Your task to perform on an android device: see sites visited before in the chrome app Image 0: 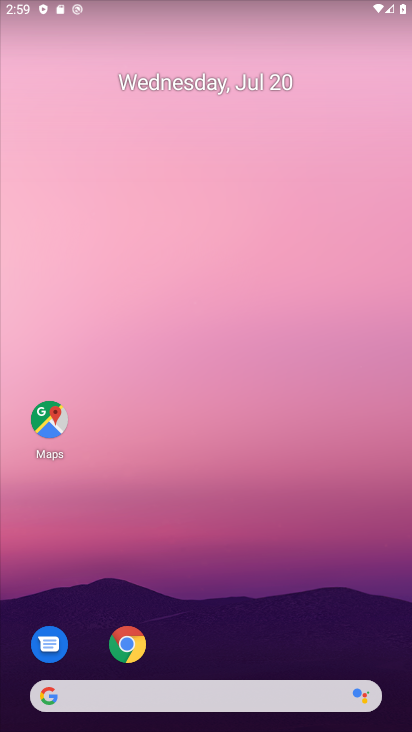
Step 0: click (131, 637)
Your task to perform on an android device: see sites visited before in the chrome app Image 1: 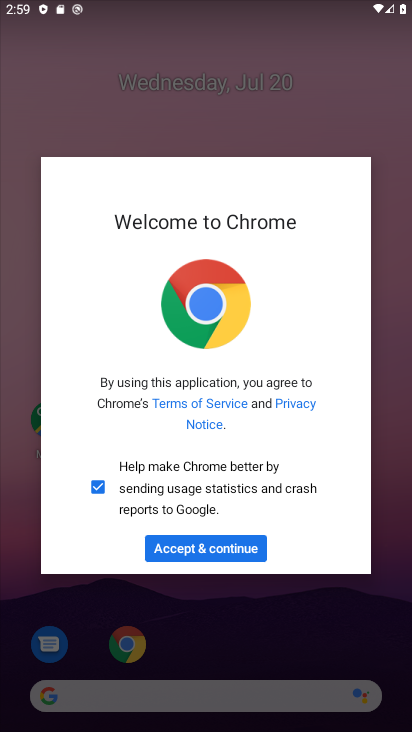
Step 1: click (232, 543)
Your task to perform on an android device: see sites visited before in the chrome app Image 2: 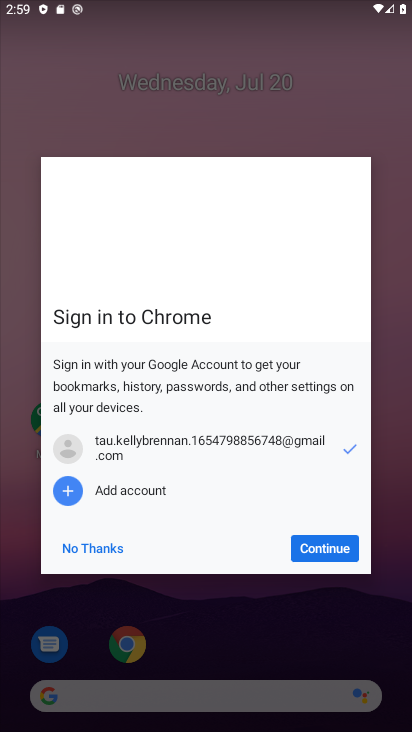
Step 2: click (349, 541)
Your task to perform on an android device: see sites visited before in the chrome app Image 3: 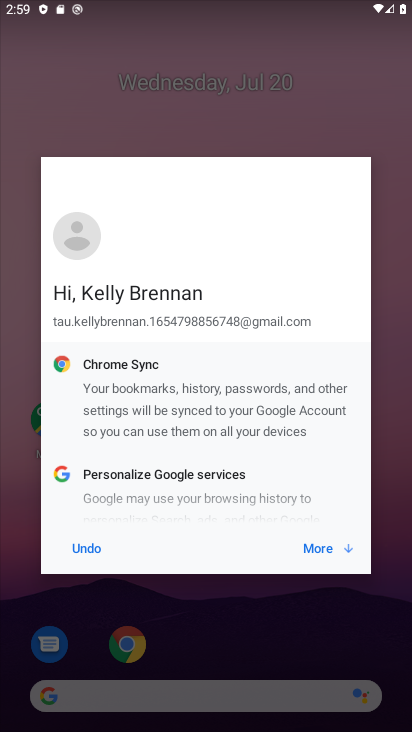
Step 3: click (324, 534)
Your task to perform on an android device: see sites visited before in the chrome app Image 4: 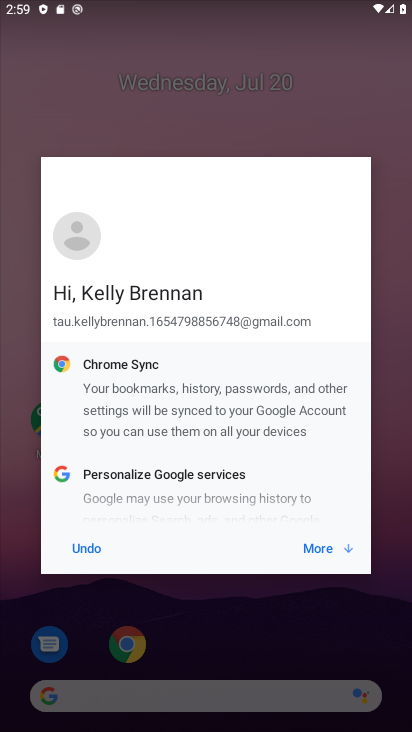
Step 4: click (322, 538)
Your task to perform on an android device: see sites visited before in the chrome app Image 5: 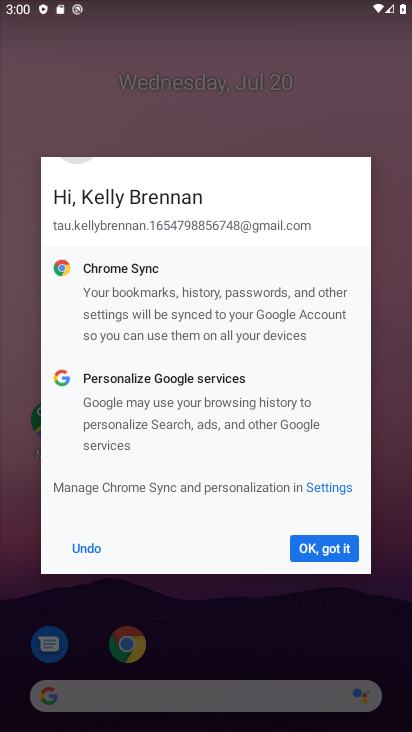
Step 5: click (299, 550)
Your task to perform on an android device: see sites visited before in the chrome app Image 6: 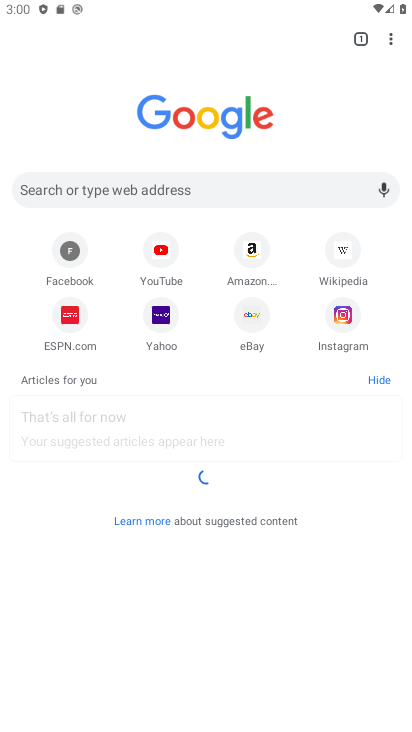
Step 6: click (390, 43)
Your task to perform on an android device: see sites visited before in the chrome app Image 7: 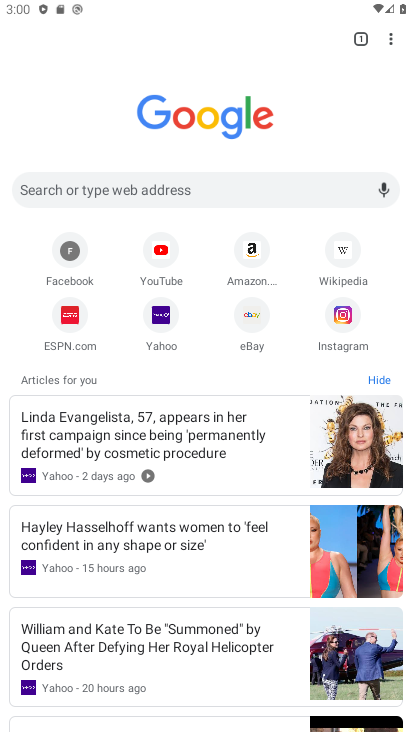
Step 7: click (390, 34)
Your task to perform on an android device: see sites visited before in the chrome app Image 8: 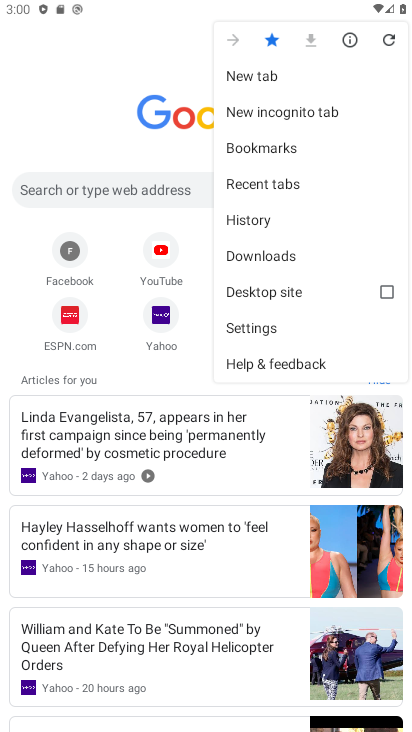
Step 8: click (263, 333)
Your task to perform on an android device: see sites visited before in the chrome app Image 9: 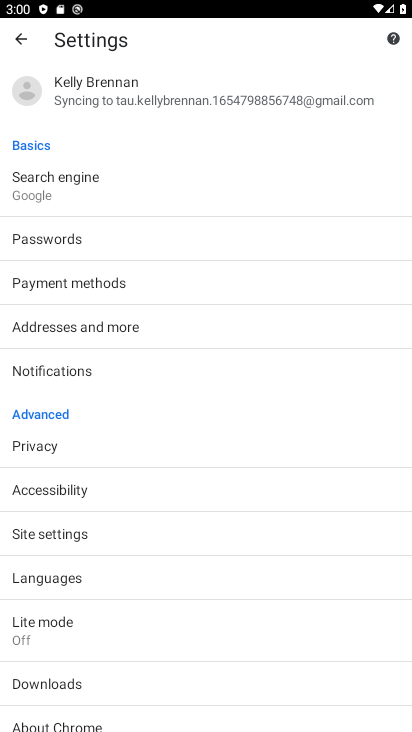
Step 9: click (55, 542)
Your task to perform on an android device: see sites visited before in the chrome app Image 10: 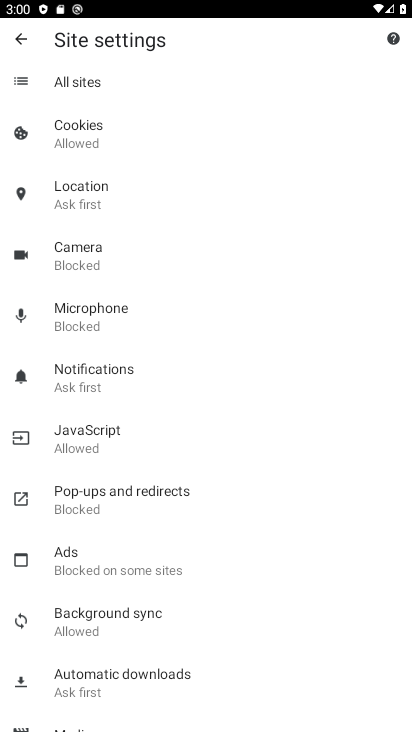
Step 10: task complete